Your task to perform on an android device: turn off priority inbox in the gmail app Image 0: 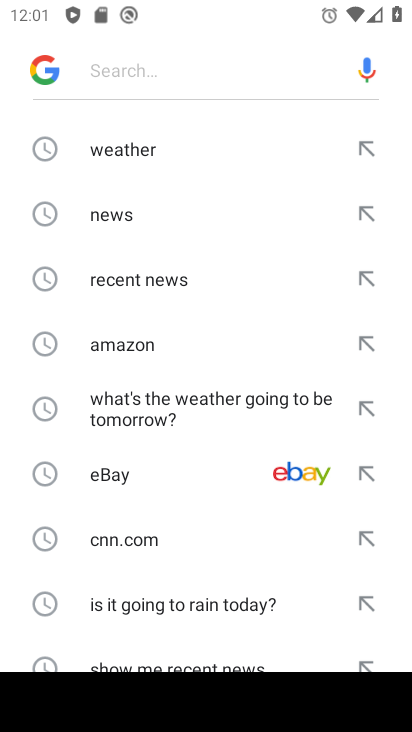
Step 0: press home button
Your task to perform on an android device: turn off priority inbox in the gmail app Image 1: 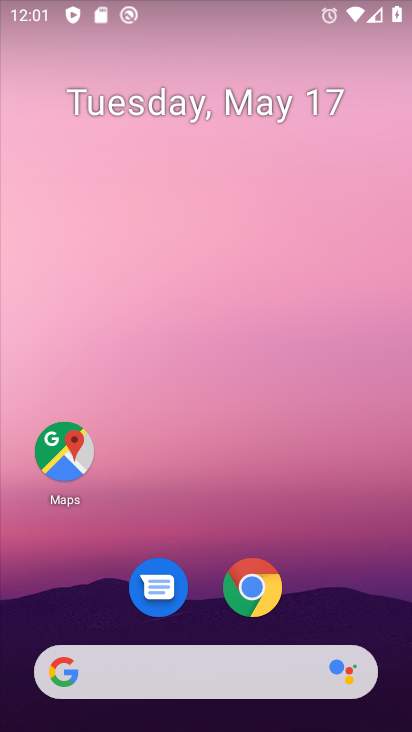
Step 1: drag from (320, 555) to (281, 35)
Your task to perform on an android device: turn off priority inbox in the gmail app Image 2: 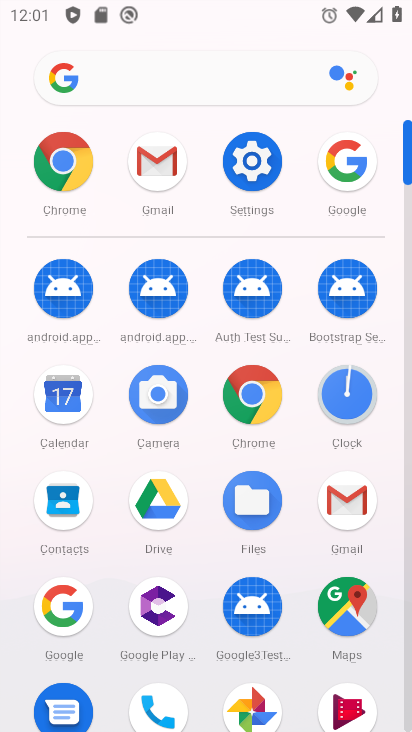
Step 2: click (339, 485)
Your task to perform on an android device: turn off priority inbox in the gmail app Image 3: 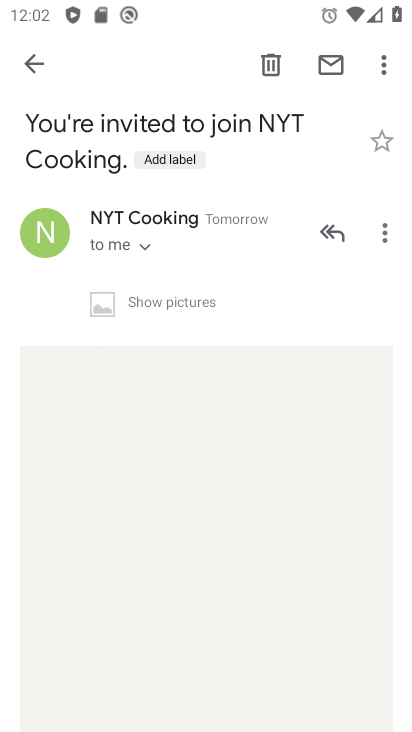
Step 3: press home button
Your task to perform on an android device: turn off priority inbox in the gmail app Image 4: 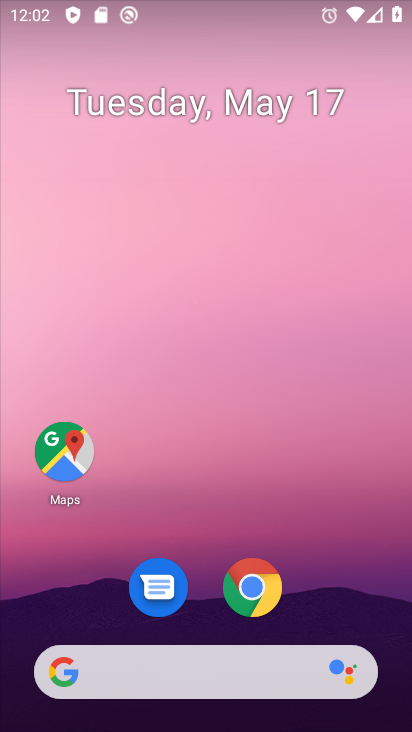
Step 4: drag from (344, 582) to (335, 250)
Your task to perform on an android device: turn off priority inbox in the gmail app Image 5: 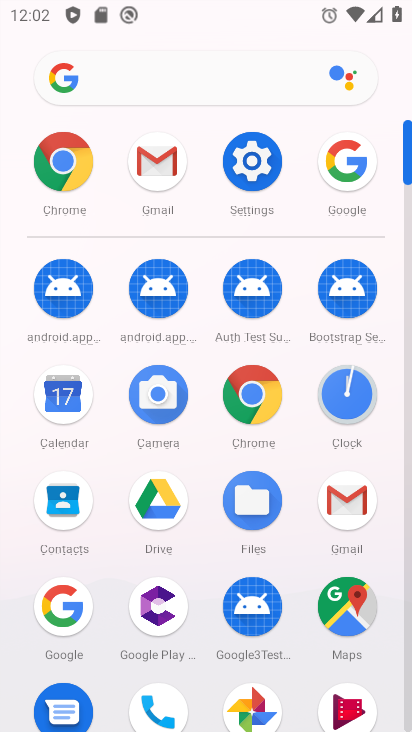
Step 5: click (348, 493)
Your task to perform on an android device: turn off priority inbox in the gmail app Image 6: 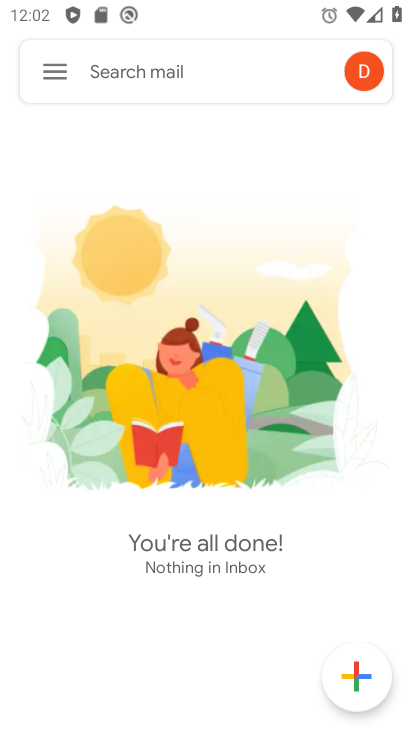
Step 6: click (56, 79)
Your task to perform on an android device: turn off priority inbox in the gmail app Image 7: 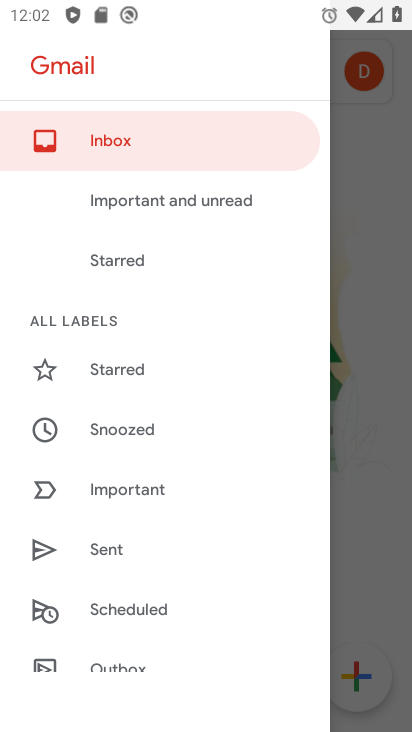
Step 7: drag from (93, 665) to (189, 2)
Your task to perform on an android device: turn off priority inbox in the gmail app Image 8: 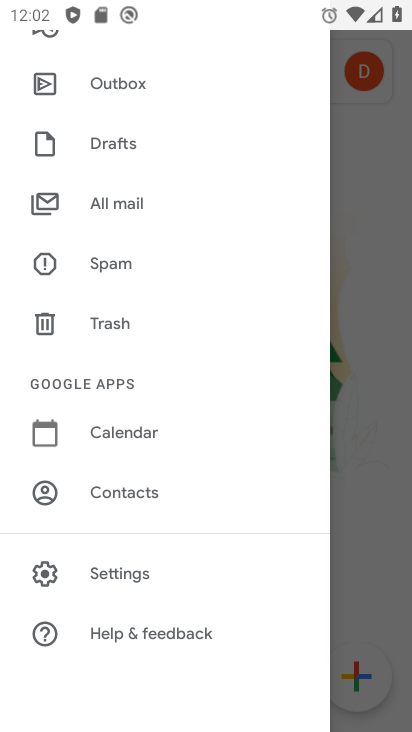
Step 8: click (121, 573)
Your task to perform on an android device: turn off priority inbox in the gmail app Image 9: 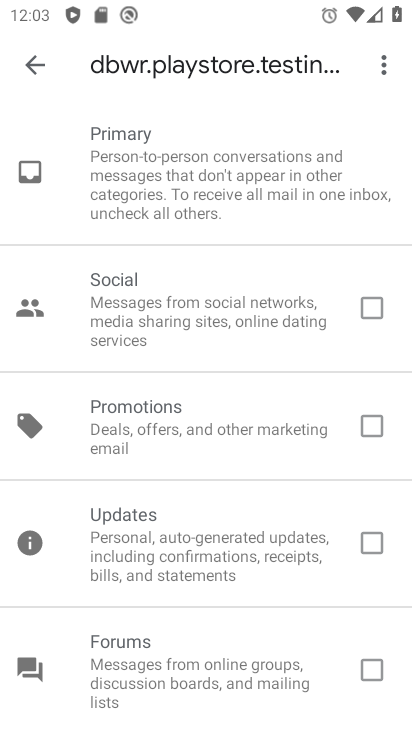
Step 9: press back button
Your task to perform on an android device: turn off priority inbox in the gmail app Image 10: 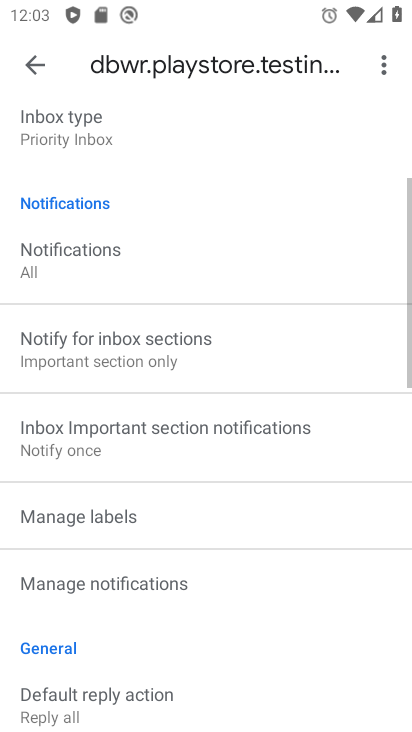
Step 10: click (69, 118)
Your task to perform on an android device: turn off priority inbox in the gmail app Image 11: 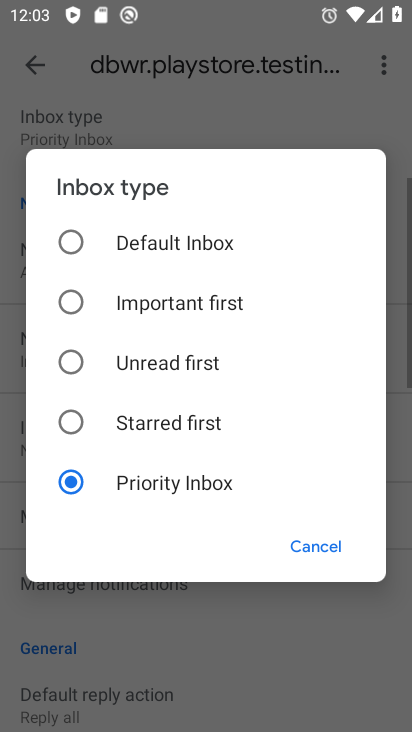
Step 11: click (176, 355)
Your task to perform on an android device: turn off priority inbox in the gmail app Image 12: 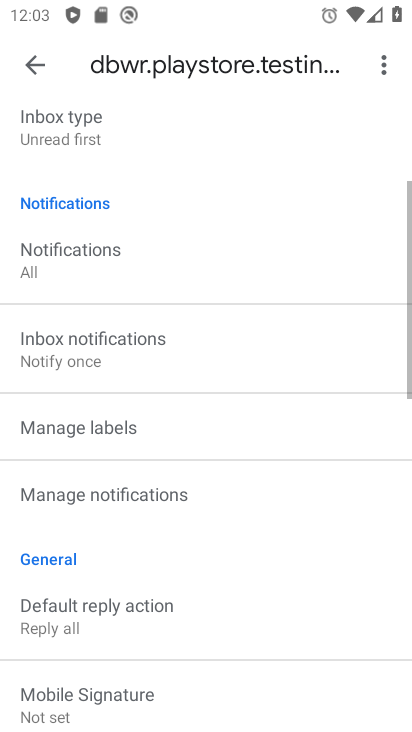
Step 12: task complete